Your task to perform on an android device: Open Google Chrome and open the bookmarks view Image 0: 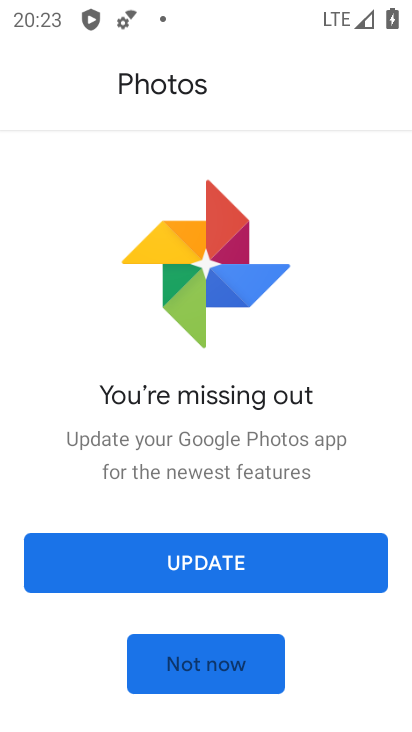
Step 0: press home button
Your task to perform on an android device: Open Google Chrome and open the bookmarks view Image 1: 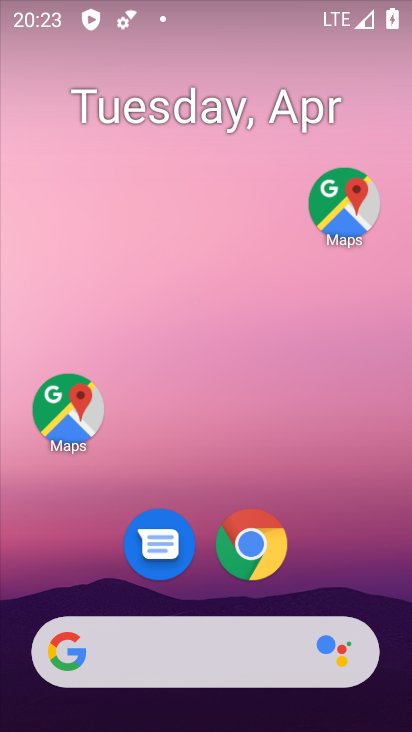
Step 1: drag from (175, 655) to (369, 36)
Your task to perform on an android device: Open Google Chrome and open the bookmarks view Image 2: 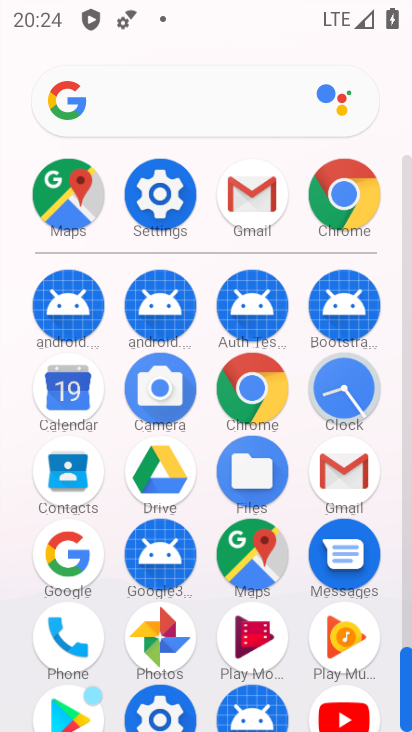
Step 2: click (348, 200)
Your task to perform on an android device: Open Google Chrome and open the bookmarks view Image 3: 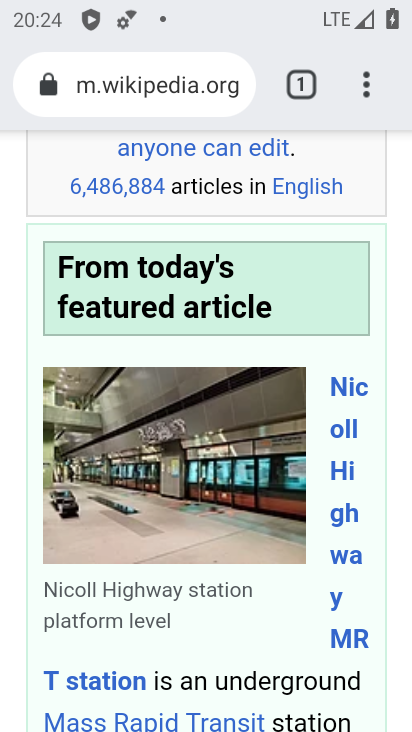
Step 3: click (365, 89)
Your task to perform on an android device: Open Google Chrome and open the bookmarks view Image 4: 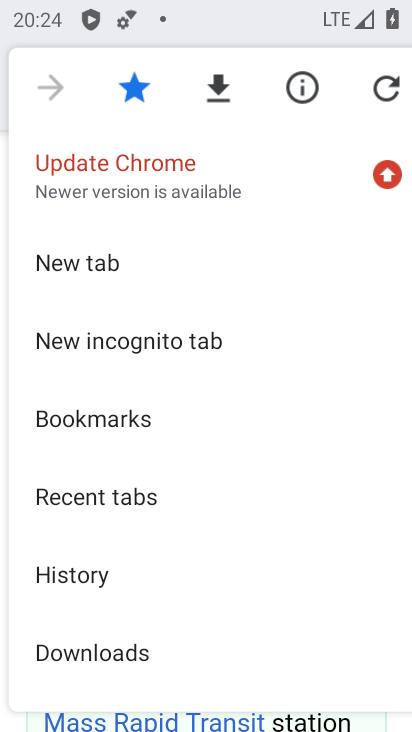
Step 4: click (98, 417)
Your task to perform on an android device: Open Google Chrome and open the bookmarks view Image 5: 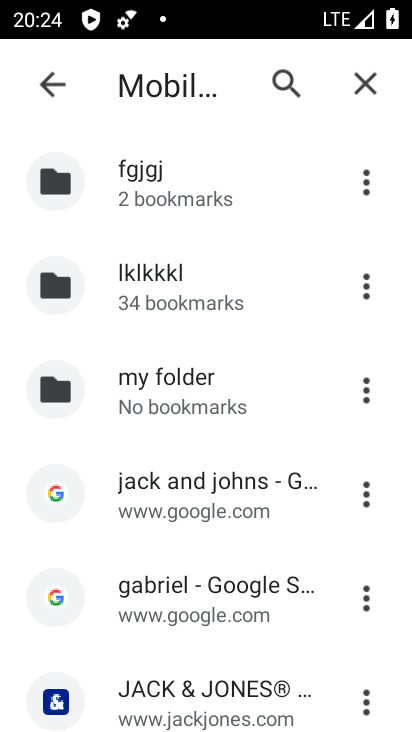
Step 5: task complete